Your task to perform on an android device: set the timer Image 0: 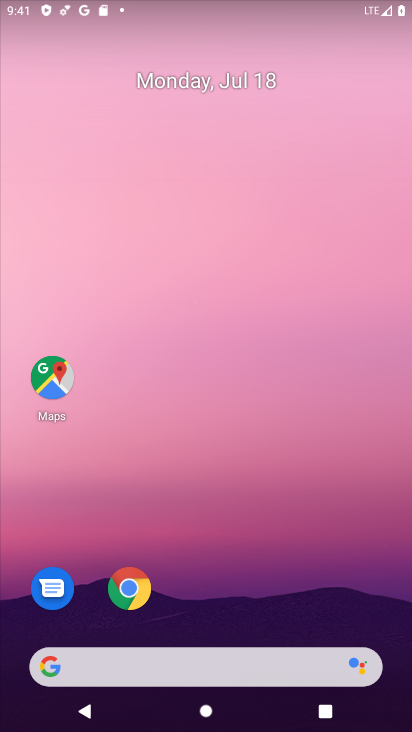
Step 0: drag from (188, 669) to (245, 108)
Your task to perform on an android device: set the timer Image 1: 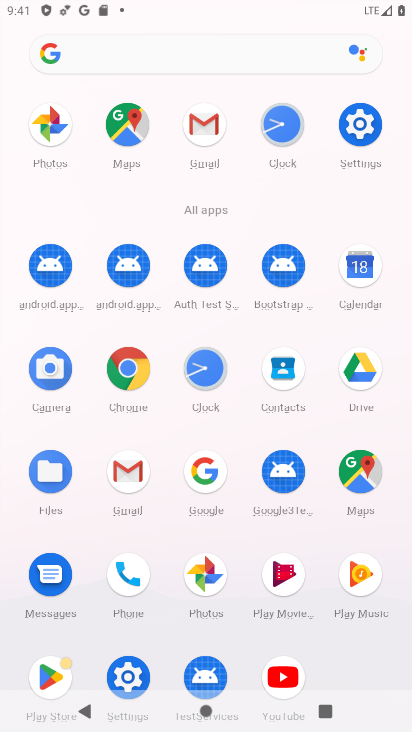
Step 1: click (281, 122)
Your task to perform on an android device: set the timer Image 2: 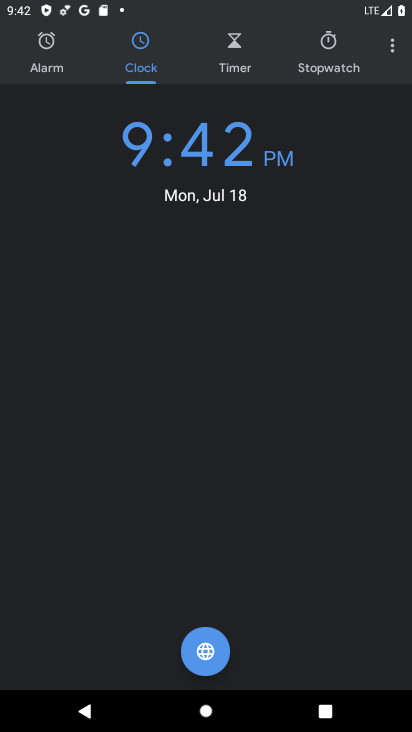
Step 2: click (236, 47)
Your task to perform on an android device: set the timer Image 3: 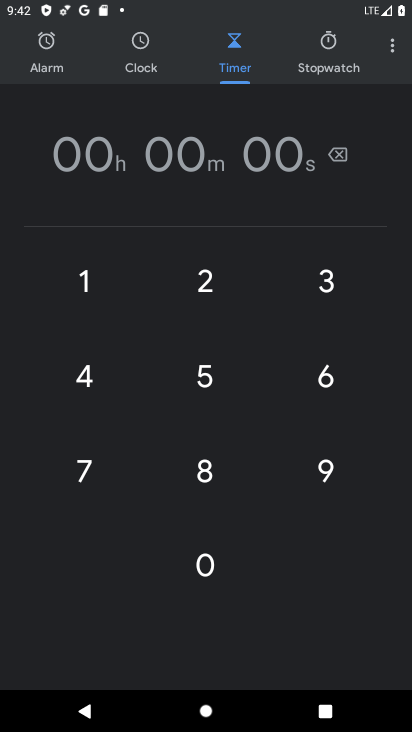
Step 3: type "1357"
Your task to perform on an android device: set the timer Image 4: 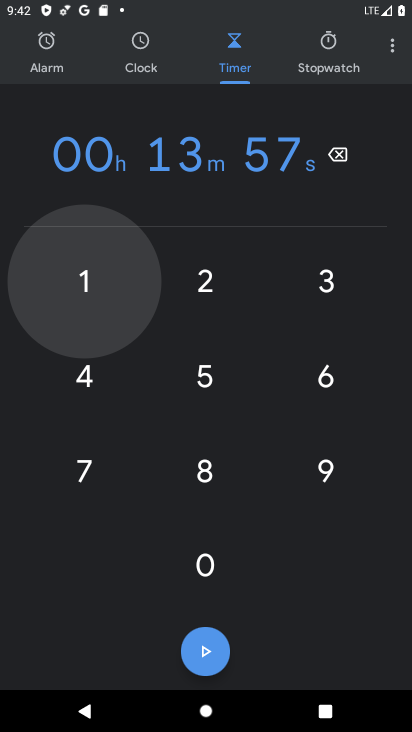
Step 4: click (213, 653)
Your task to perform on an android device: set the timer Image 5: 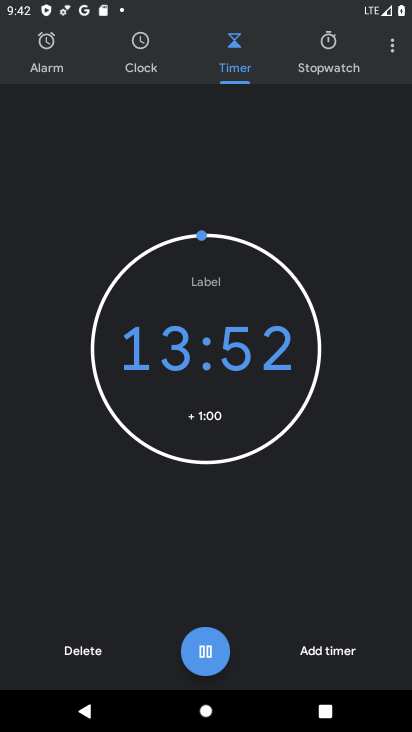
Step 5: click (202, 660)
Your task to perform on an android device: set the timer Image 6: 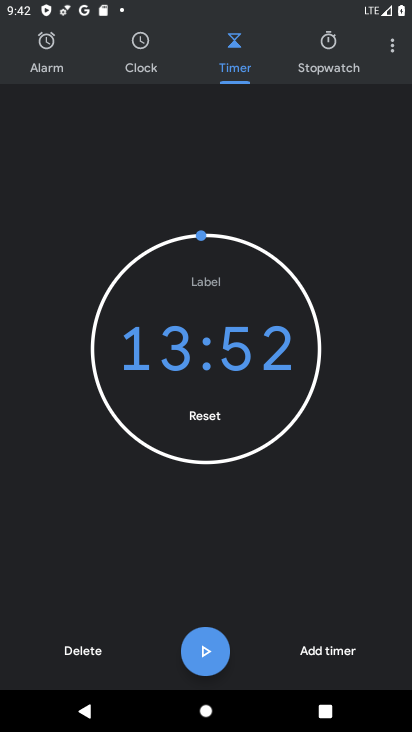
Step 6: task complete